Your task to perform on an android device: open device folders in google photos Image 0: 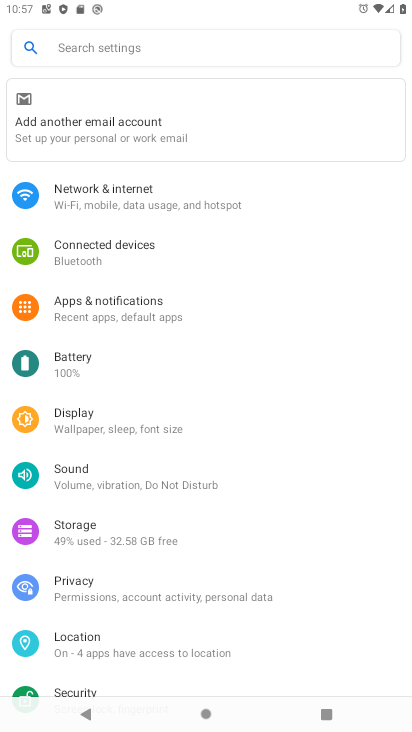
Step 0: press home button
Your task to perform on an android device: open device folders in google photos Image 1: 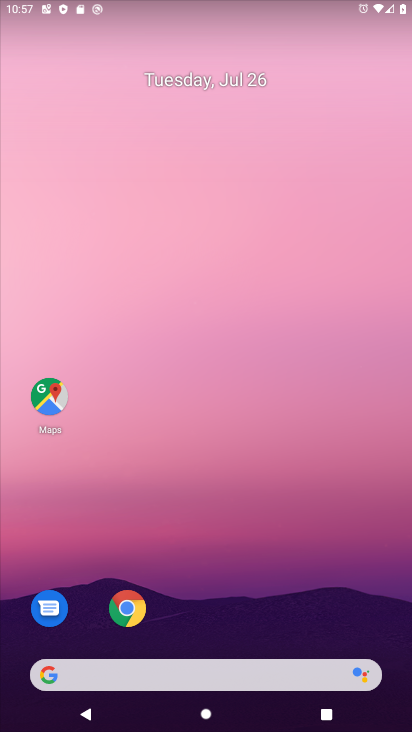
Step 1: drag from (186, 724) to (177, 42)
Your task to perform on an android device: open device folders in google photos Image 2: 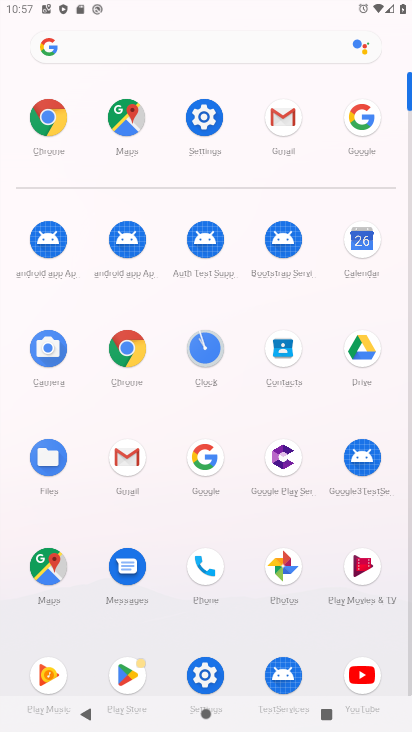
Step 2: click (283, 564)
Your task to perform on an android device: open device folders in google photos Image 3: 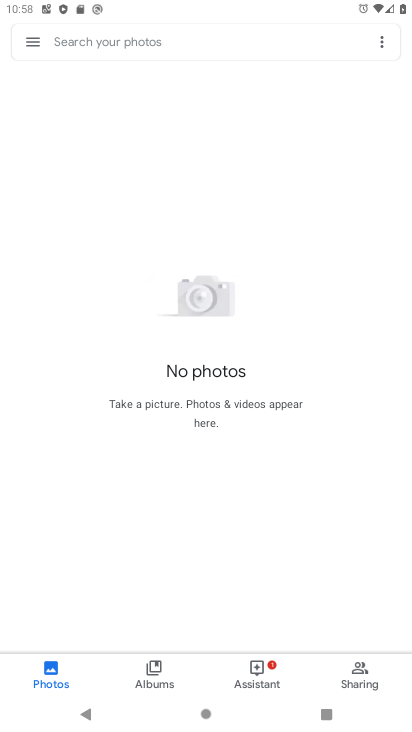
Step 3: click (32, 42)
Your task to perform on an android device: open device folders in google photos Image 4: 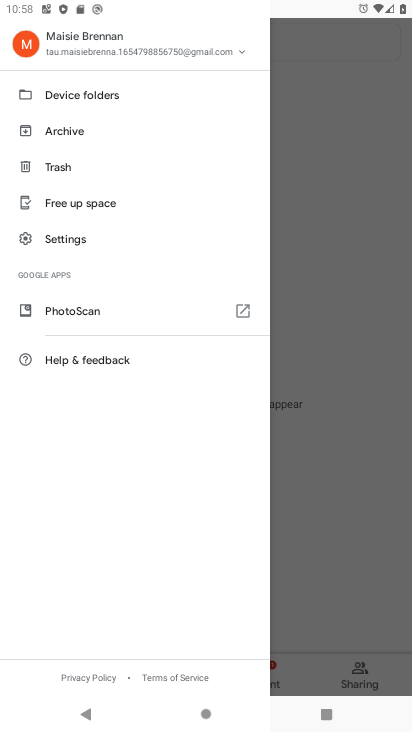
Step 4: click (90, 97)
Your task to perform on an android device: open device folders in google photos Image 5: 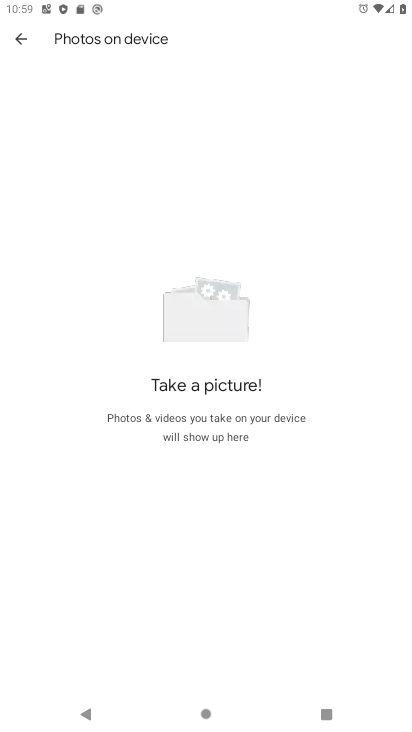
Step 5: task complete